Your task to perform on an android device: Go to battery settings Image 0: 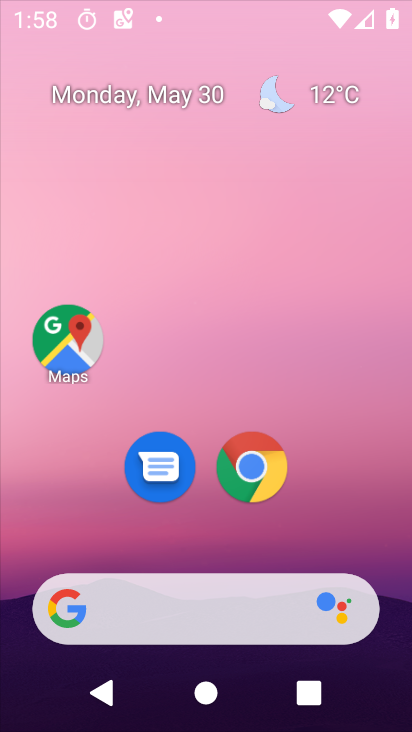
Step 0: click (261, 452)
Your task to perform on an android device: Go to battery settings Image 1: 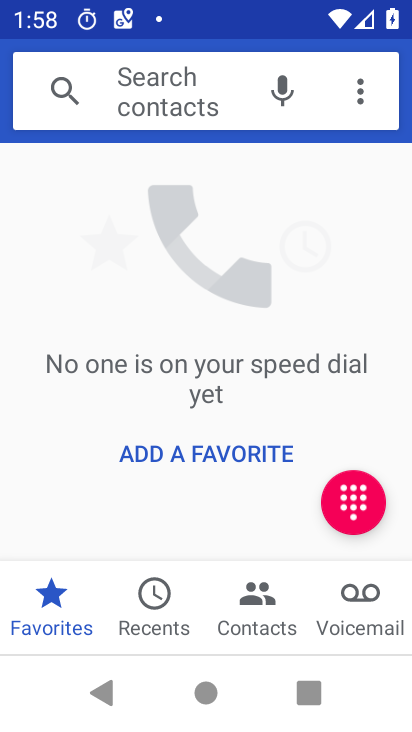
Step 1: press home button
Your task to perform on an android device: Go to battery settings Image 2: 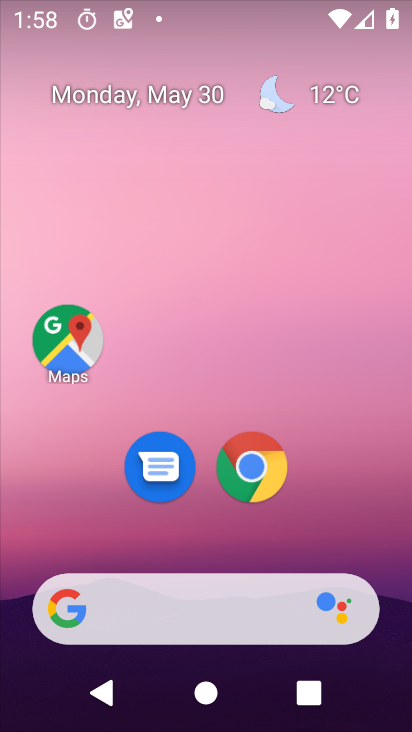
Step 2: drag from (390, 712) to (342, 194)
Your task to perform on an android device: Go to battery settings Image 3: 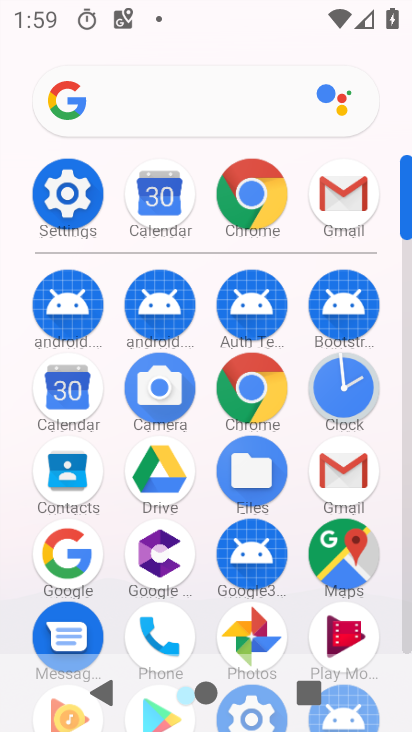
Step 3: click (92, 194)
Your task to perform on an android device: Go to battery settings Image 4: 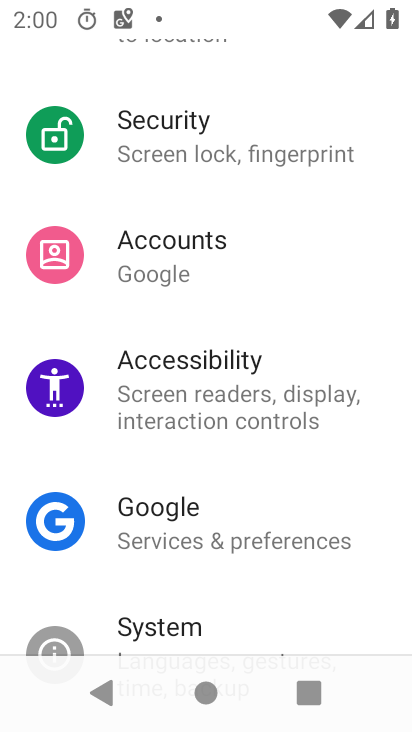
Step 4: drag from (265, 610) to (248, 403)
Your task to perform on an android device: Go to battery settings Image 5: 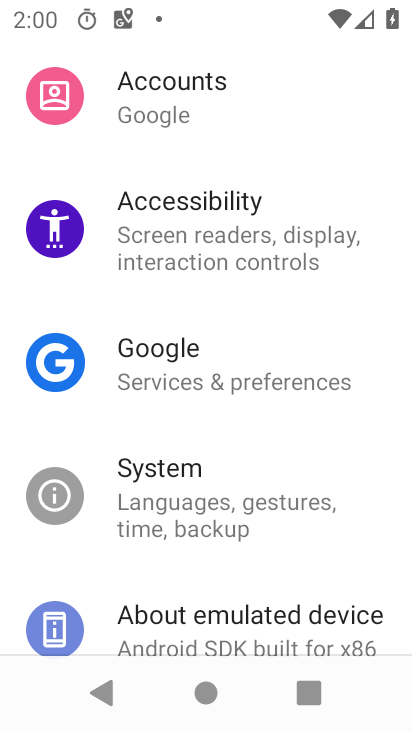
Step 5: drag from (273, 169) to (337, 569)
Your task to perform on an android device: Go to battery settings Image 6: 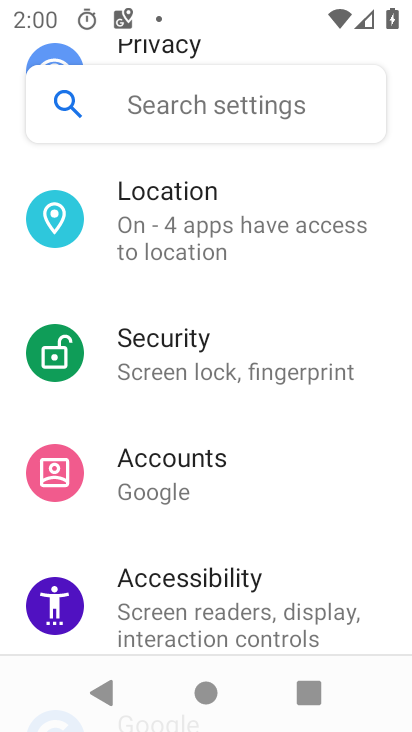
Step 6: drag from (320, 180) to (359, 540)
Your task to perform on an android device: Go to battery settings Image 7: 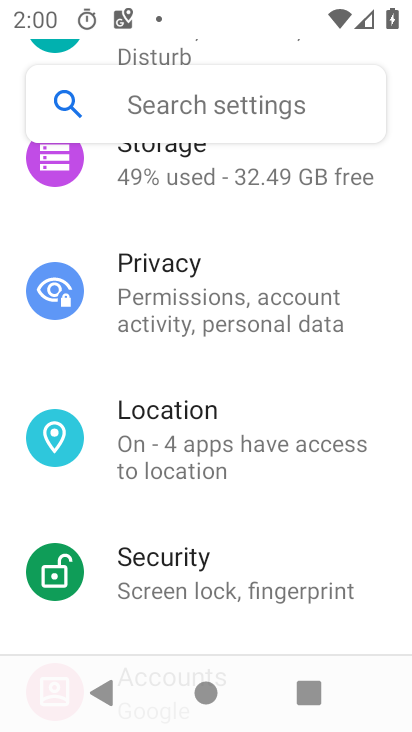
Step 7: drag from (309, 240) to (357, 504)
Your task to perform on an android device: Go to battery settings Image 8: 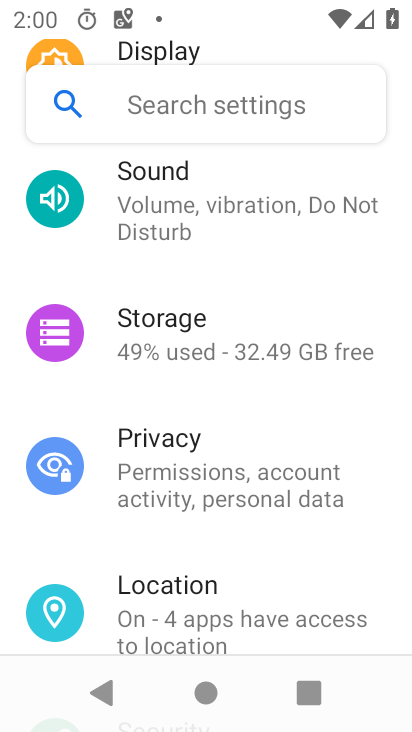
Step 8: drag from (295, 170) to (347, 504)
Your task to perform on an android device: Go to battery settings Image 9: 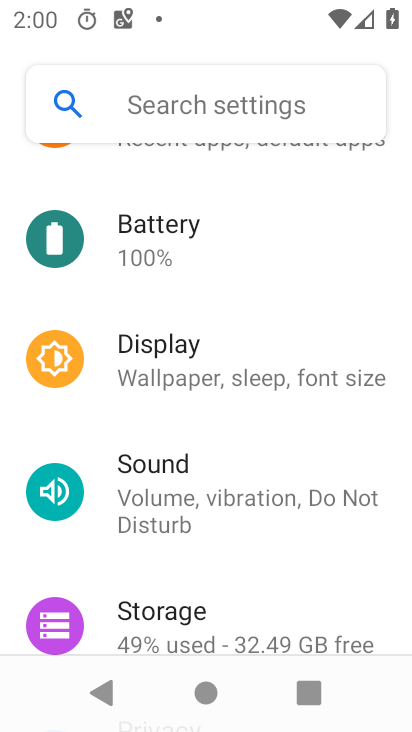
Step 9: click (135, 228)
Your task to perform on an android device: Go to battery settings Image 10: 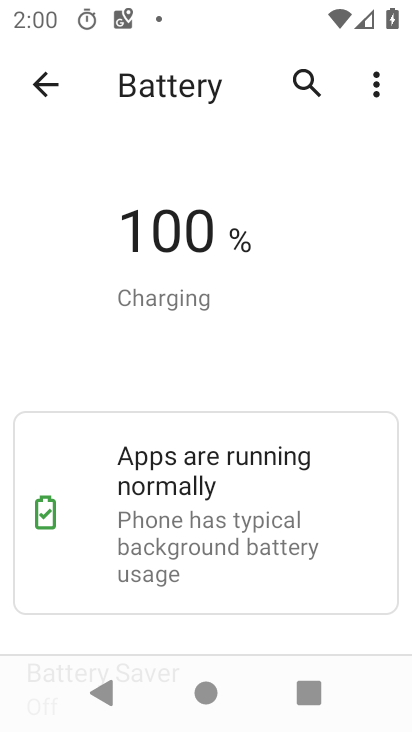
Step 10: task complete